Your task to perform on an android device: Check the news Image 0: 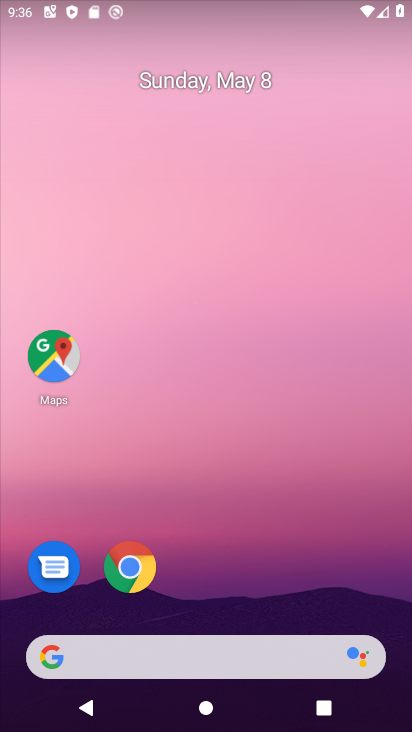
Step 0: drag from (216, 410) to (65, 86)
Your task to perform on an android device: Check the news Image 1: 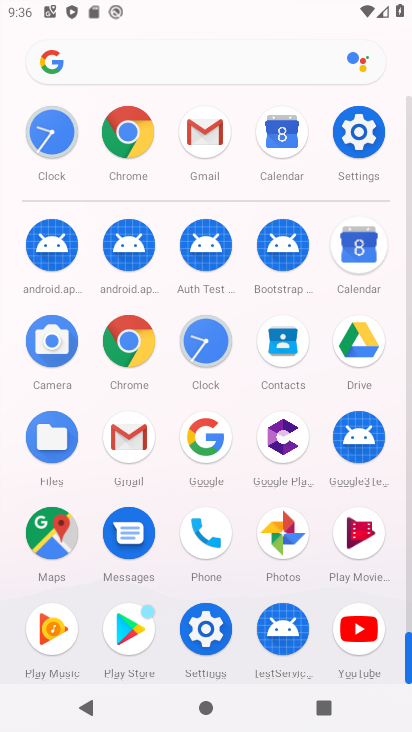
Step 1: press home button
Your task to perform on an android device: Check the news Image 2: 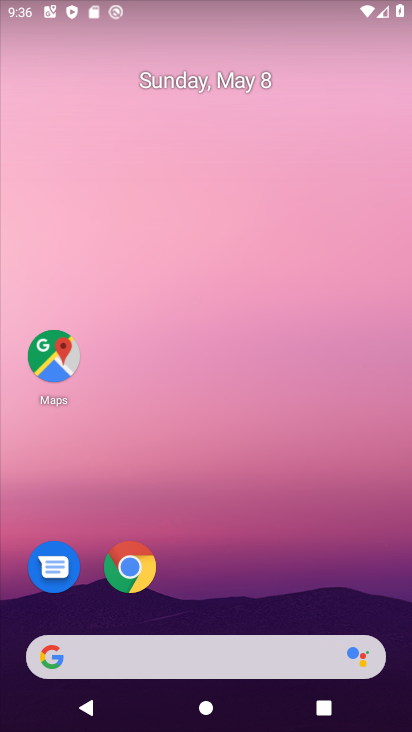
Step 2: drag from (1, 194) to (411, 368)
Your task to perform on an android device: Check the news Image 3: 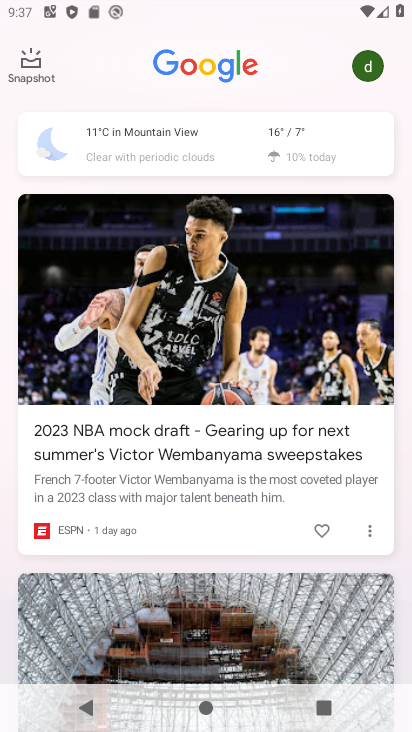
Step 3: click (194, 151)
Your task to perform on an android device: Check the news Image 4: 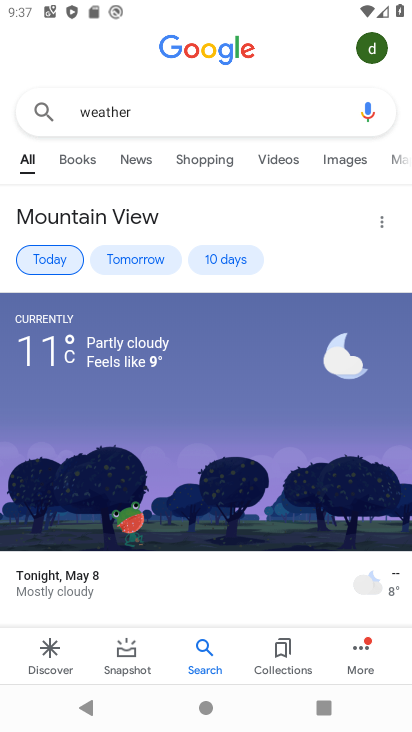
Step 4: click (150, 84)
Your task to perform on an android device: Check the news Image 5: 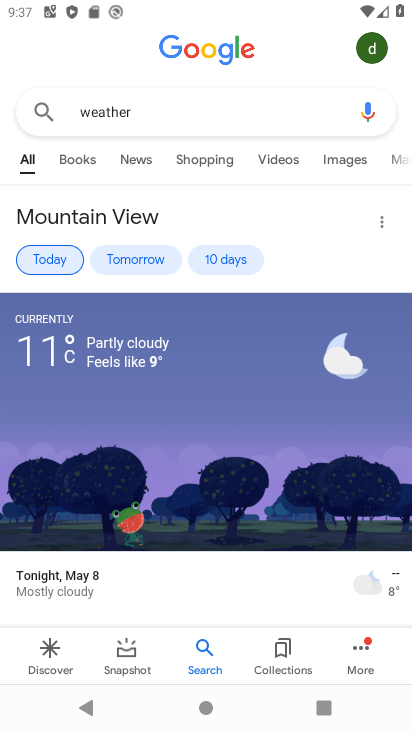
Step 5: task complete